Your task to perform on an android device: Open the calendar app, open the side menu, and click the "Day" option Image 0: 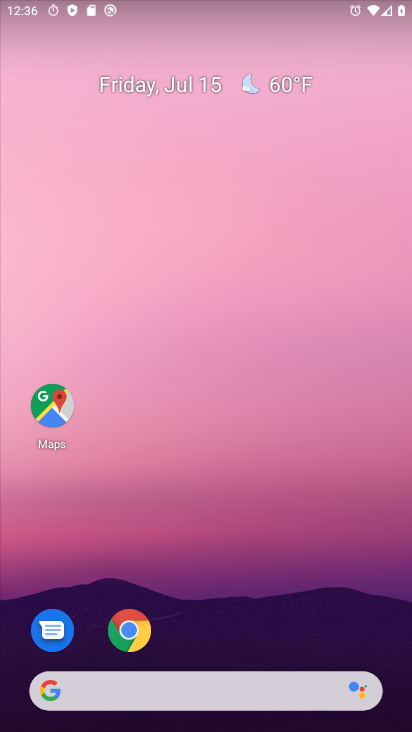
Step 0: drag from (199, 330) to (222, 221)
Your task to perform on an android device: Open the calendar app, open the side menu, and click the "Day" option Image 1: 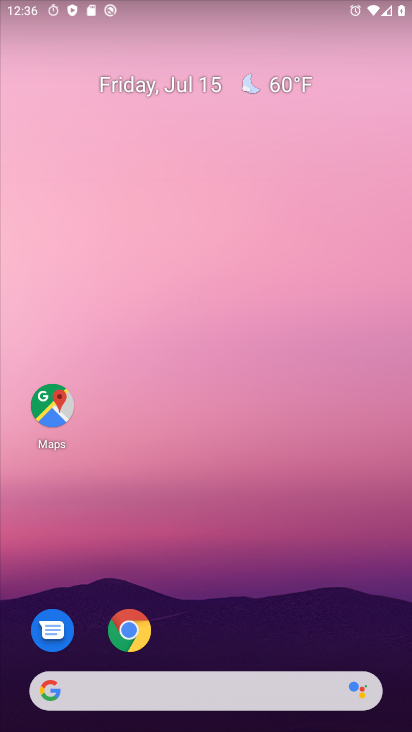
Step 1: drag from (222, 521) to (228, 258)
Your task to perform on an android device: Open the calendar app, open the side menu, and click the "Day" option Image 2: 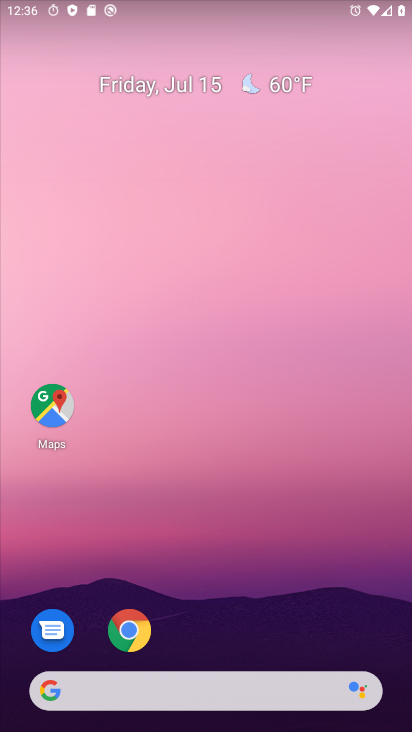
Step 2: drag from (193, 574) to (202, 375)
Your task to perform on an android device: Open the calendar app, open the side menu, and click the "Day" option Image 3: 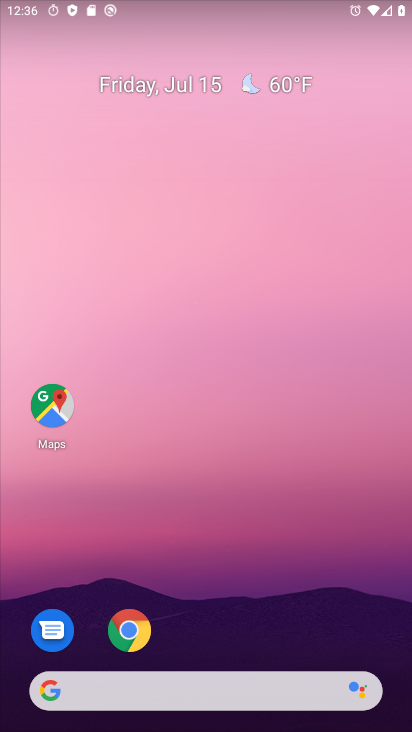
Step 3: click (216, 35)
Your task to perform on an android device: Open the calendar app, open the side menu, and click the "Day" option Image 4: 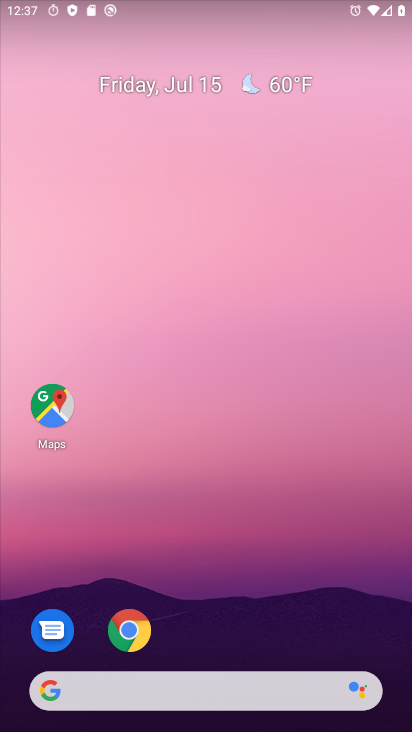
Step 4: drag from (213, 630) to (253, 60)
Your task to perform on an android device: Open the calendar app, open the side menu, and click the "Day" option Image 5: 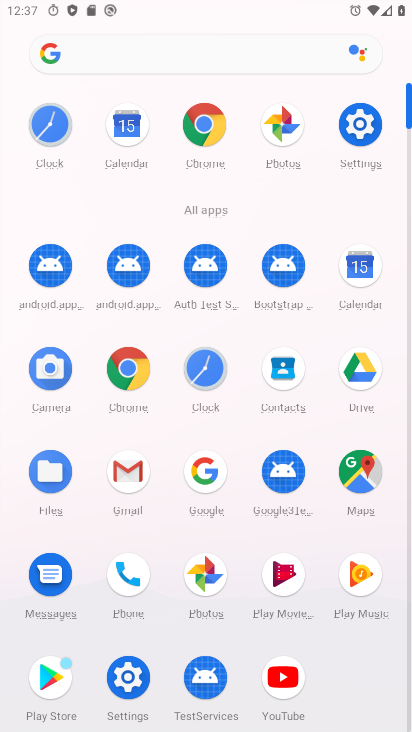
Step 5: click (360, 269)
Your task to perform on an android device: Open the calendar app, open the side menu, and click the "Day" option Image 6: 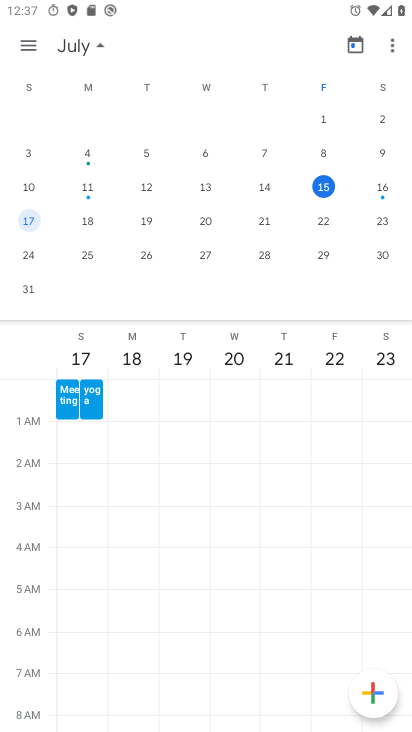
Step 6: click (22, 39)
Your task to perform on an android device: Open the calendar app, open the side menu, and click the "Day" option Image 7: 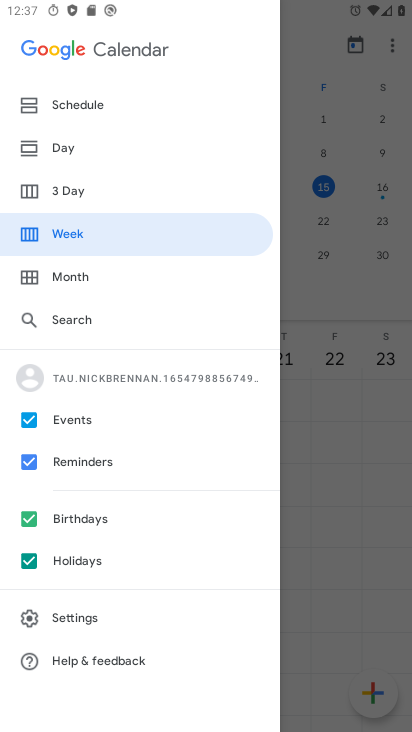
Step 7: click (41, 155)
Your task to perform on an android device: Open the calendar app, open the side menu, and click the "Day" option Image 8: 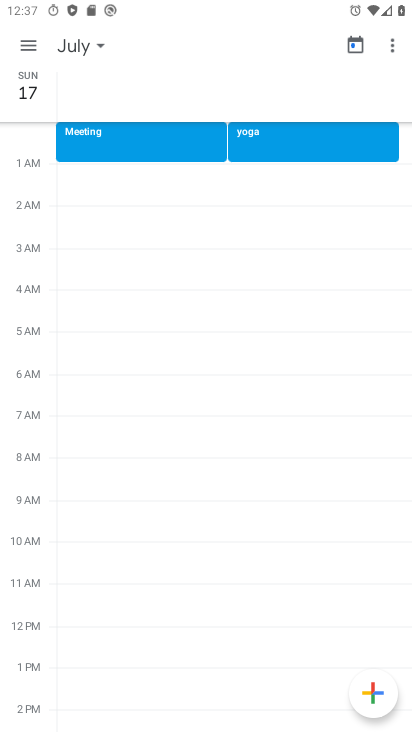
Step 8: task complete